Your task to perform on an android device: Open Google Image 0: 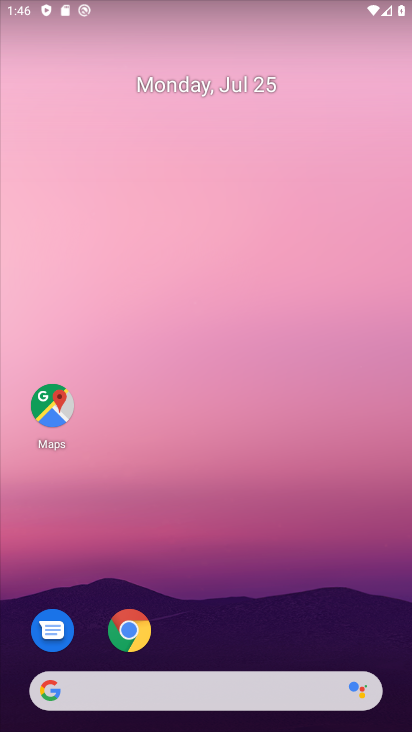
Step 0: drag from (264, 638) to (181, 31)
Your task to perform on an android device: Open Google Image 1: 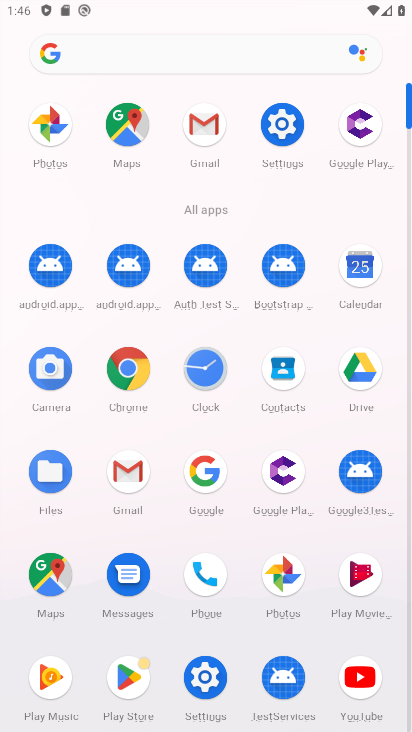
Step 1: click (207, 474)
Your task to perform on an android device: Open Google Image 2: 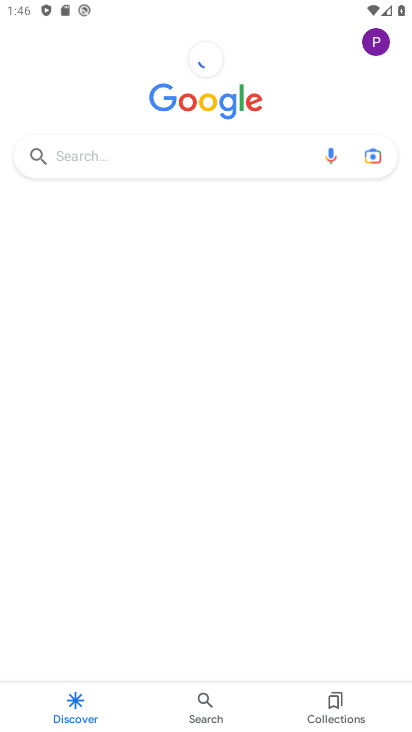
Step 2: task complete